Your task to perform on an android device: turn off airplane mode Image 0: 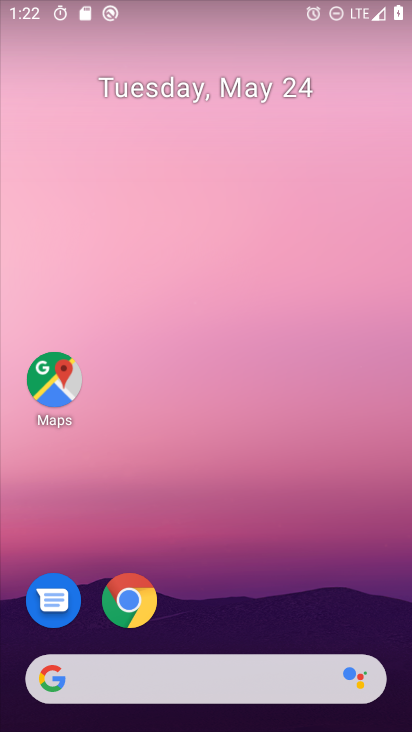
Step 0: drag from (288, 567) to (266, 138)
Your task to perform on an android device: turn off airplane mode Image 1: 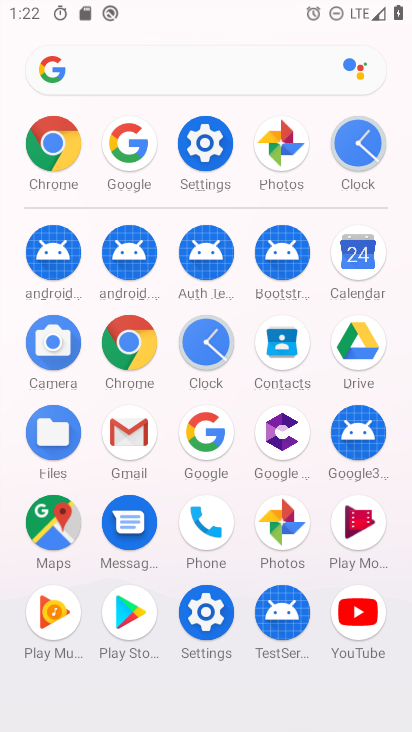
Step 1: click (209, 162)
Your task to perform on an android device: turn off airplane mode Image 2: 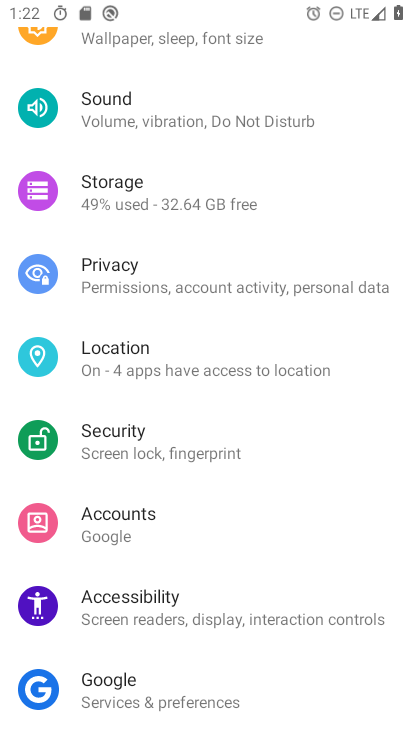
Step 2: drag from (214, 158) to (286, 562)
Your task to perform on an android device: turn off airplane mode Image 3: 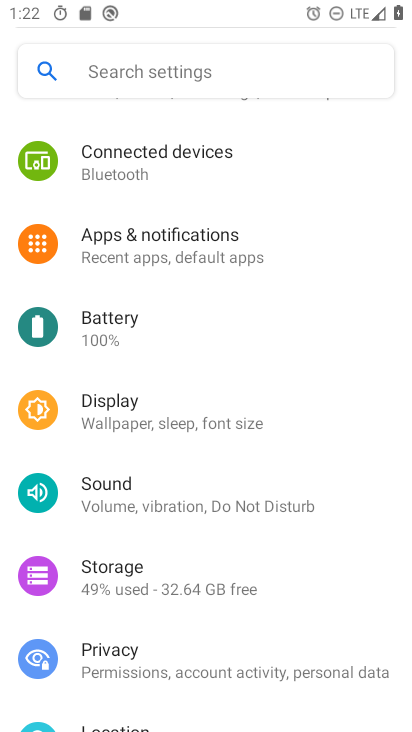
Step 3: drag from (218, 201) to (214, 511)
Your task to perform on an android device: turn off airplane mode Image 4: 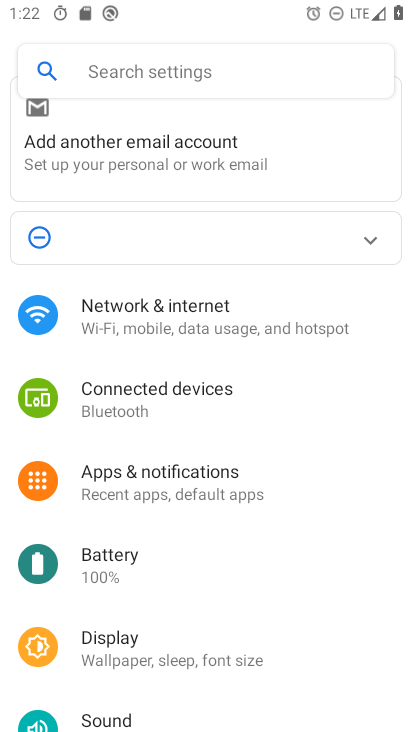
Step 4: click (205, 318)
Your task to perform on an android device: turn off airplane mode Image 5: 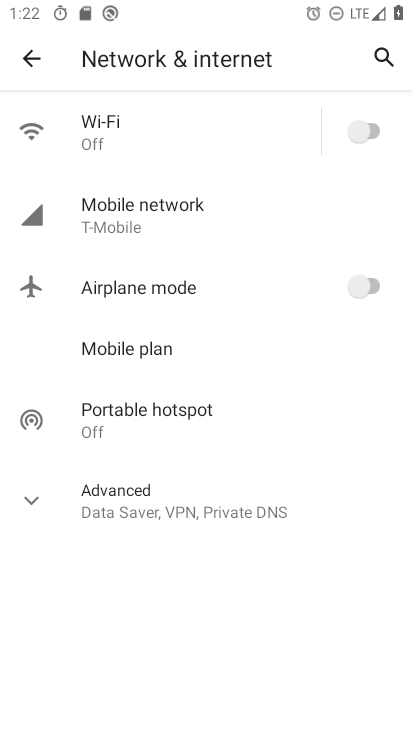
Step 5: task complete